Your task to perform on an android device: Toggle the flashlight Image 0: 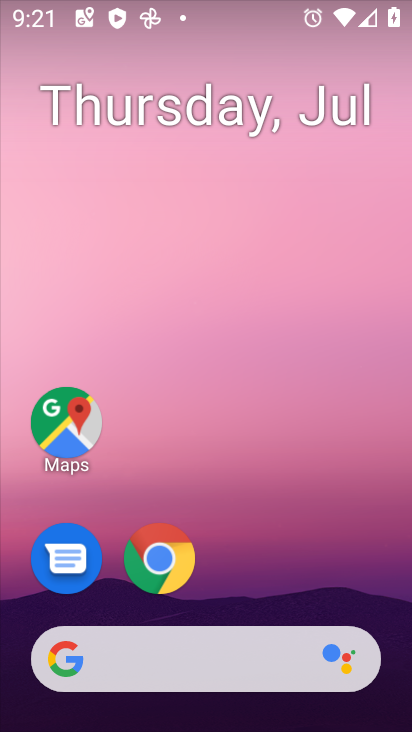
Step 0: drag from (241, 3) to (281, 258)
Your task to perform on an android device: Toggle the flashlight Image 1: 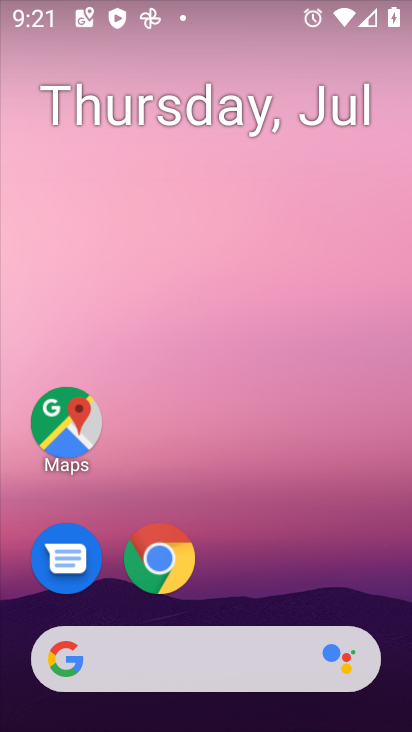
Step 1: drag from (237, 0) to (281, 319)
Your task to perform on an android device: Toggle the flashlight Image 2: 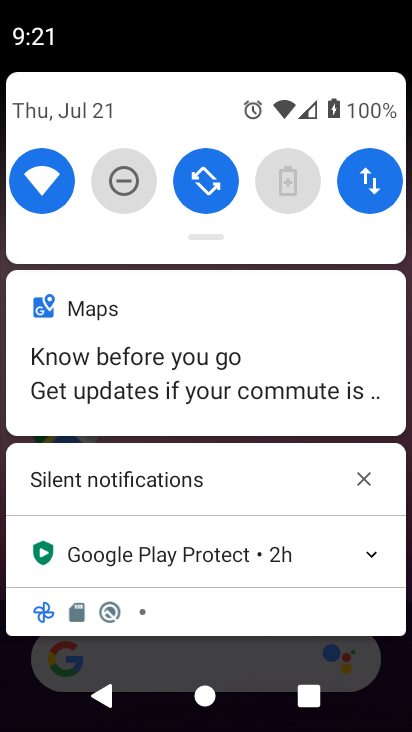
Step 2: drag from (232, 136) to (243, 390)
Your task to perform on an android device: Toggle the flashlight Image 3: 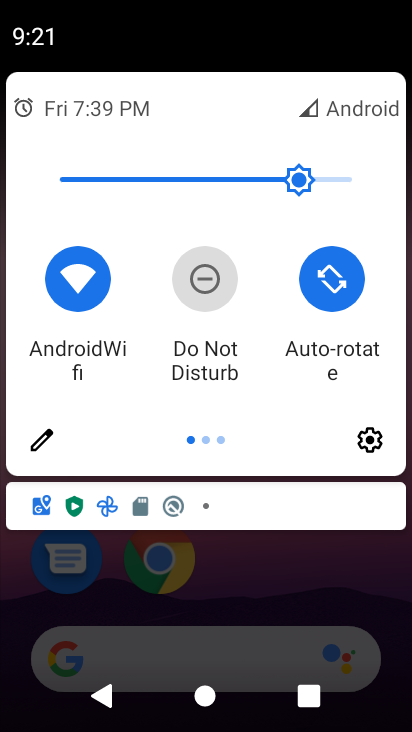
Step 3: click (37, 456)
Your task to perform on an android device: Toggle the flashlight Image 4: 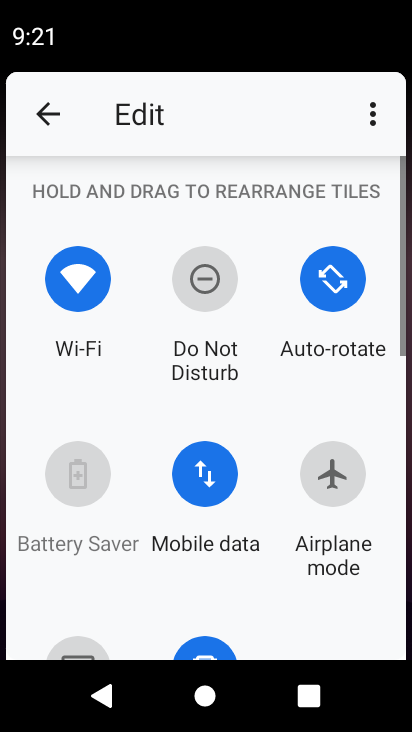
Step 4: task complete